Your task to perform on an android device: Go to Wikipedia Image 0: 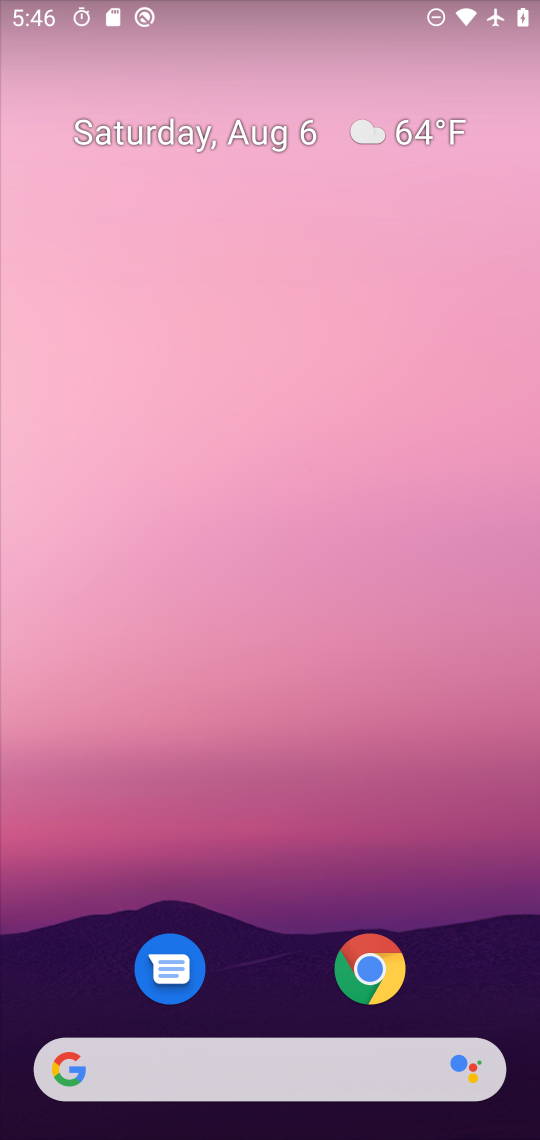
Step 0: click (55, 1084)
Your task to perform on an android device: Go to Wikipedia Image 1: 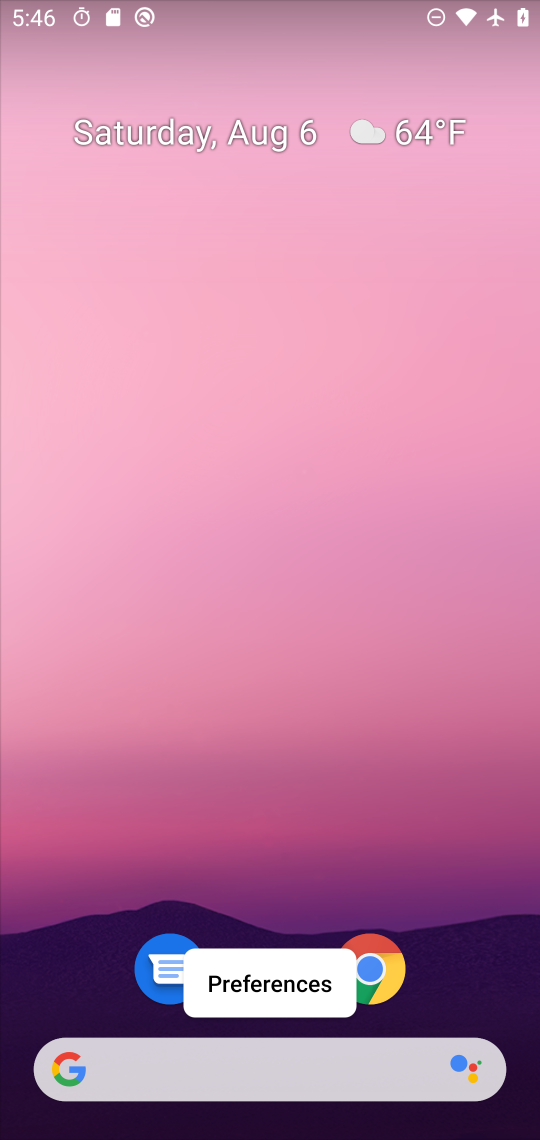
Step 1: click (69, 1072)
Your task to perform on an android device: Go to Wikipedia Image 2: 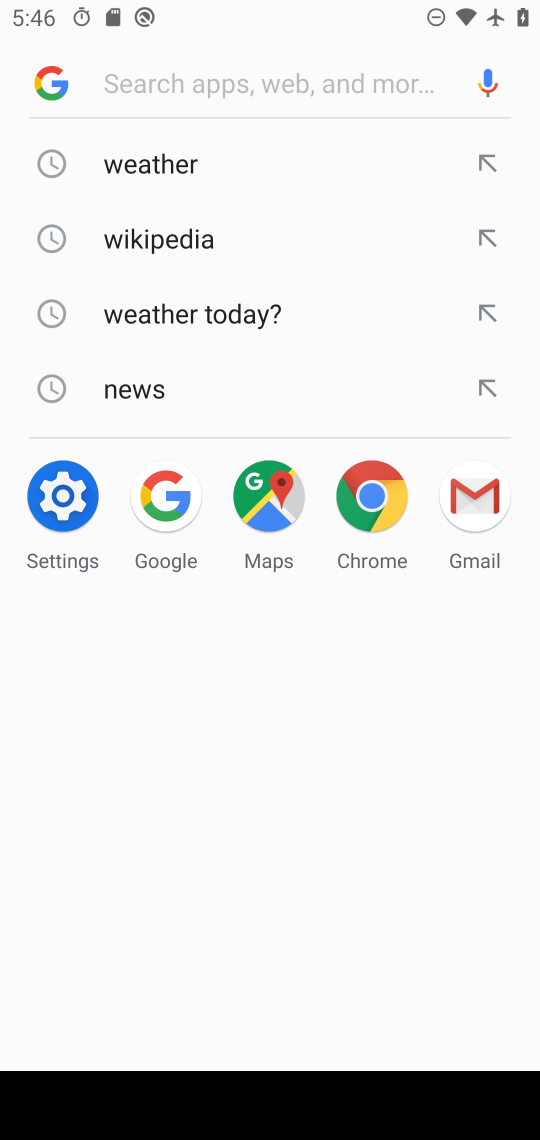
Step 2: click (163, 250)
Your task to perform on an android device: Go to Wikipedia Image 3: 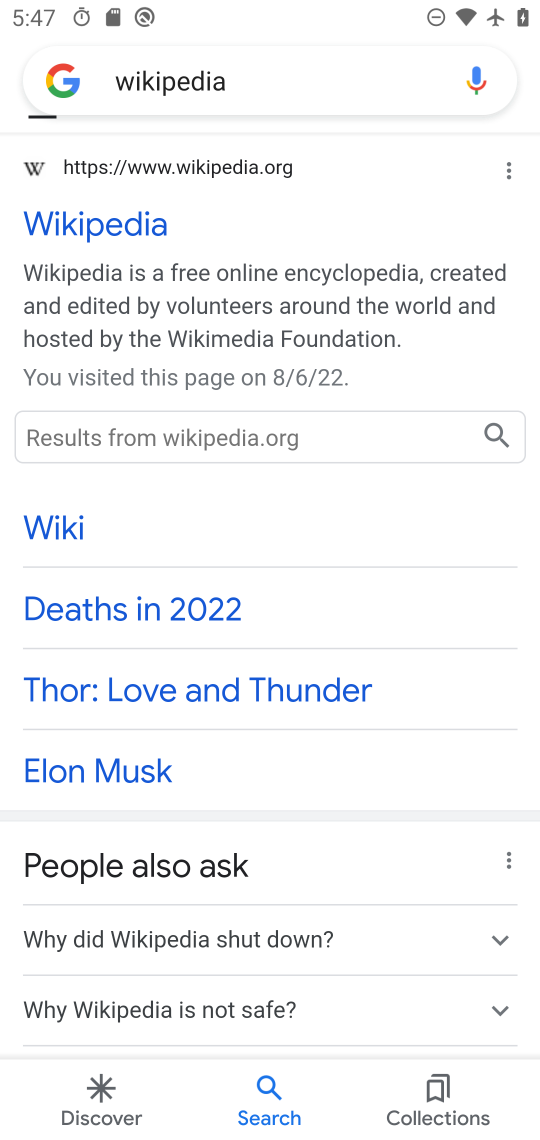
Step 3: click (83, 234)
Your task to perform on an android device: Go to Wikipedia Image 4: 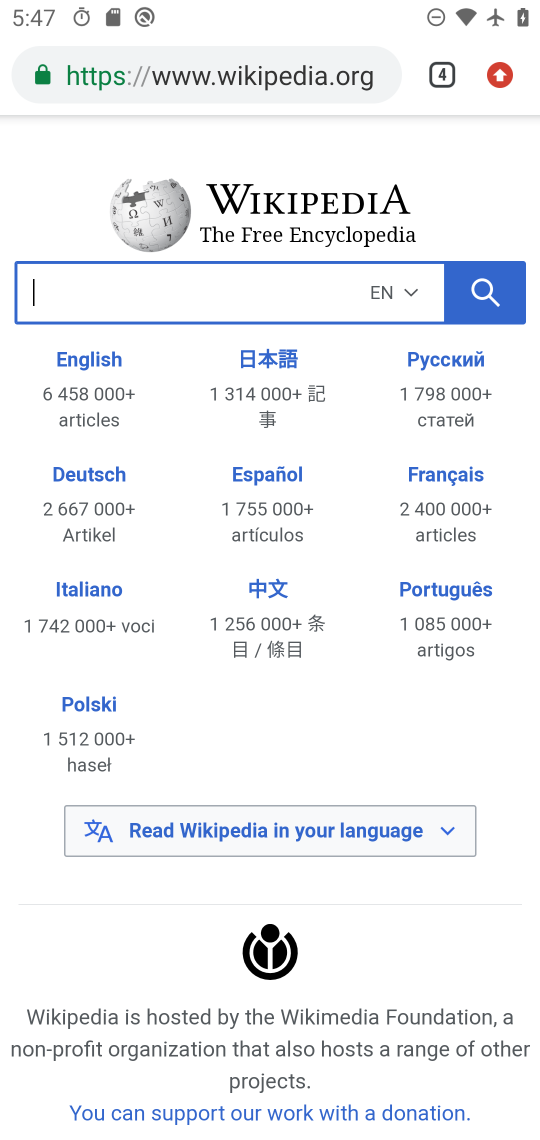
Step 4: task complete